Your task to perform on an android device: Search for "bose soundsport free" on costco, select the first entry, and add it to the cart. Image 0: 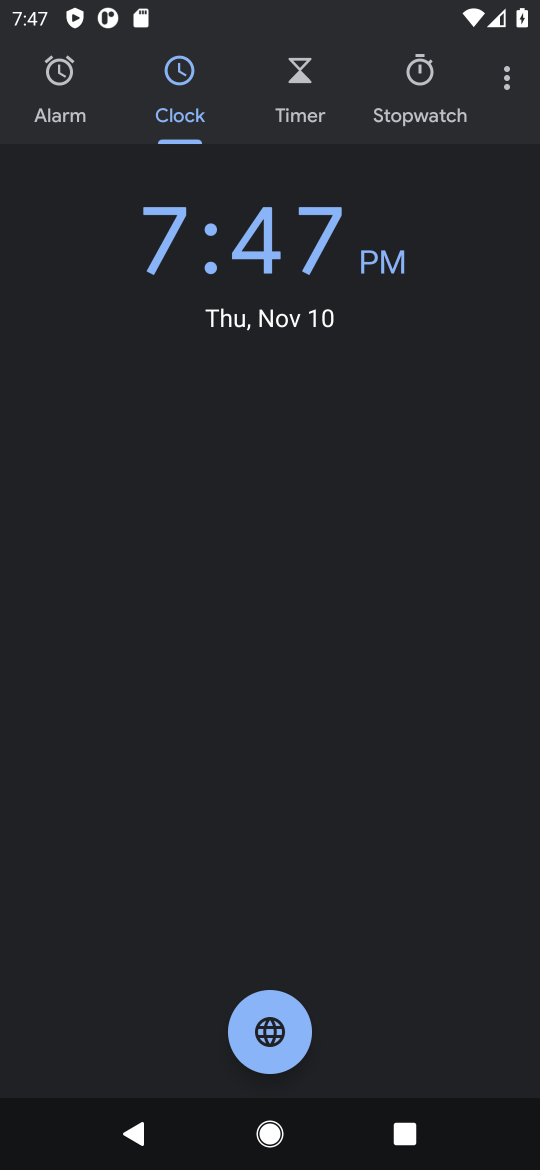
Step 0: press home button
Your task to perform on an android device: Search for "bose soundsport free" on costco, select the first entry, and add it to the cart. Image 1: 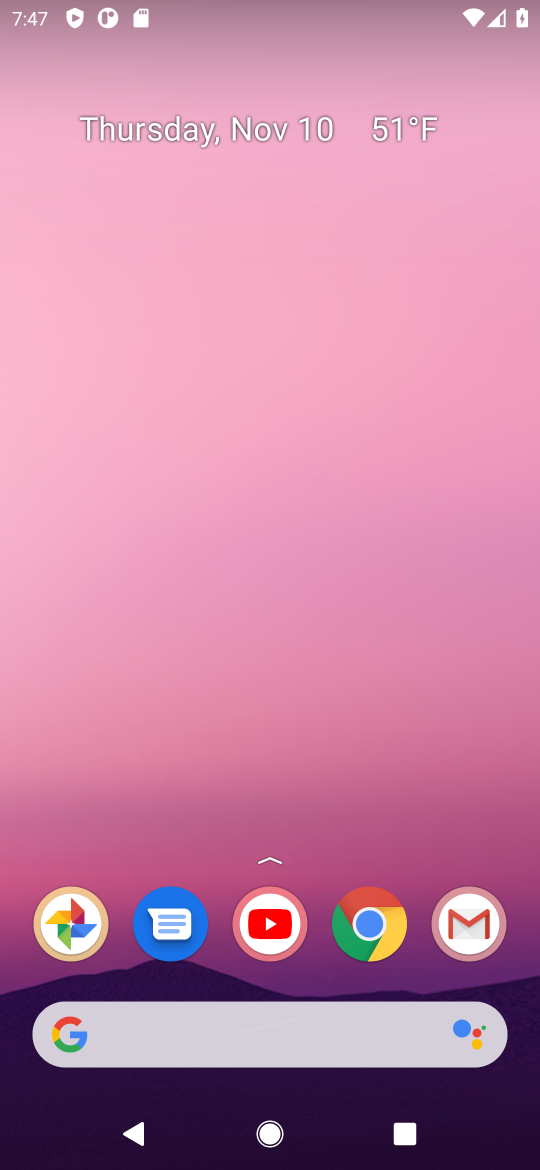
Step 1: click (368, 927)
Your task to perform on an android device: Search for "bose soundsport free" on costco, select the first entry, and add it to the cart. Image 2: 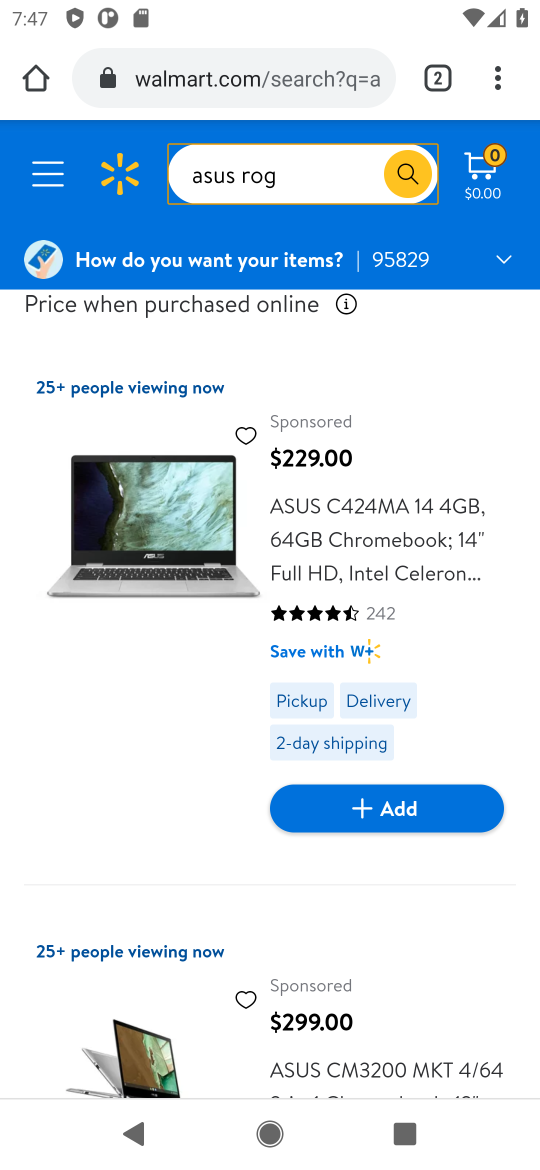
Step 2: click (249, 78)
Your task to perform on an android device: Search for "bose soundsport free" on costco, select the first entry, and add it to the cart. Image 3: 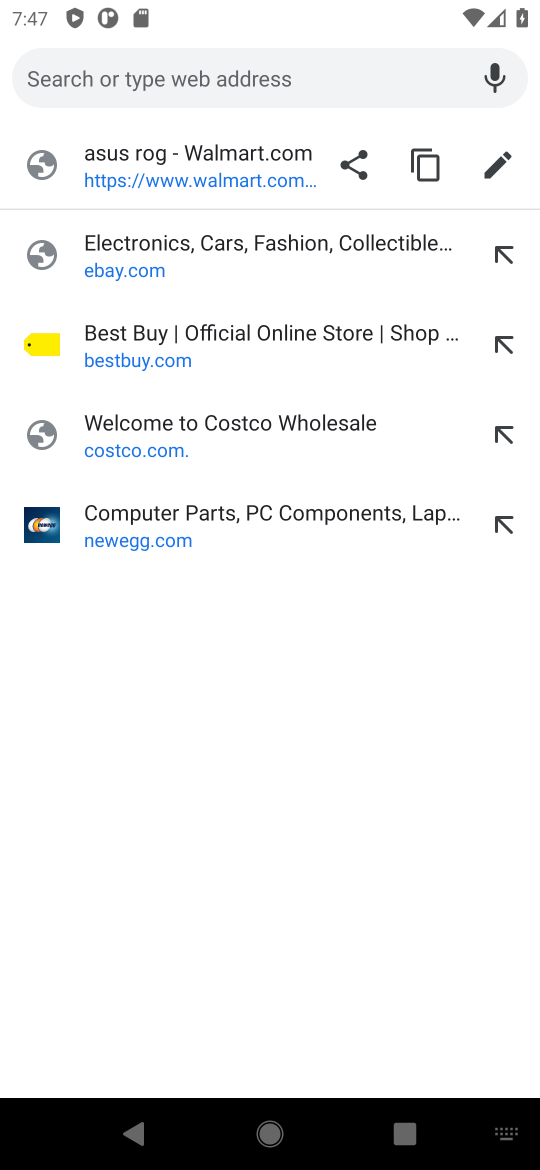
Step 3: click (116, 429)
Your task to perform on an android device: Search for "bose soundsport free" on costco, select the first entry, and add it to the cart. Image 4: 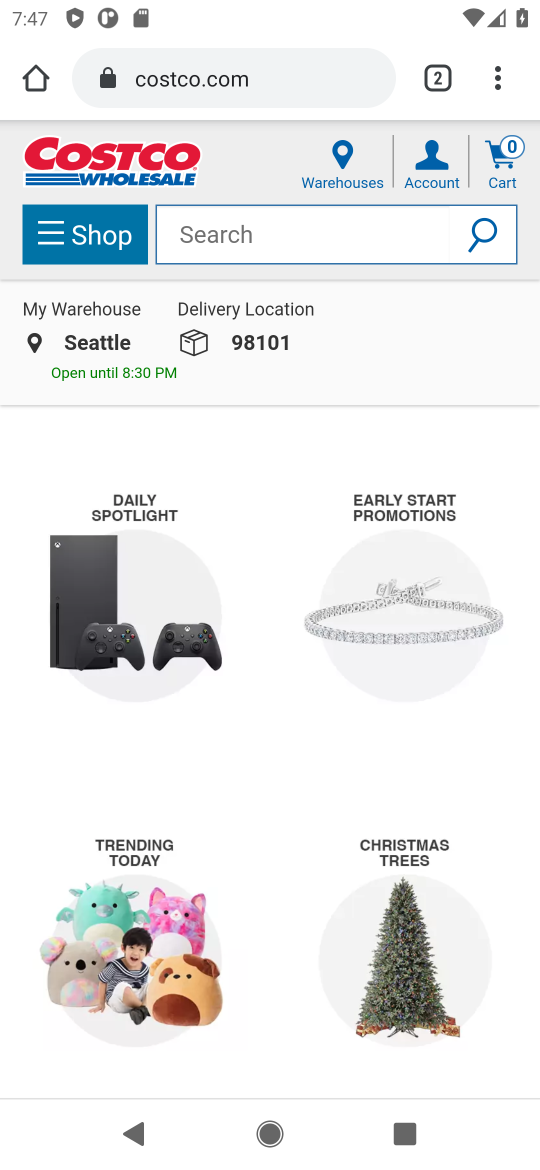
Step 4: click (220, 241)
Your task to perform on an android device: Search for "bose soundsport free" on costco, select the first entry, and add it to the cart. Image 5: 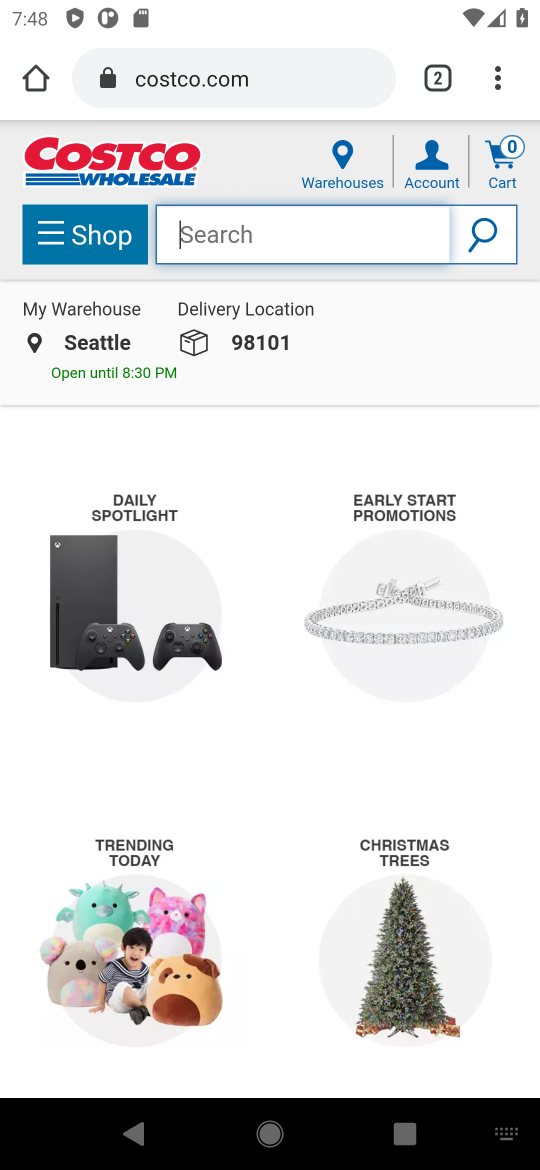
Step 5: type "bose soundsport free"
Your task to perform on an android device: Search for "bose soundsport free" on costco, select the first entry, and add it to the cart. Image 6: 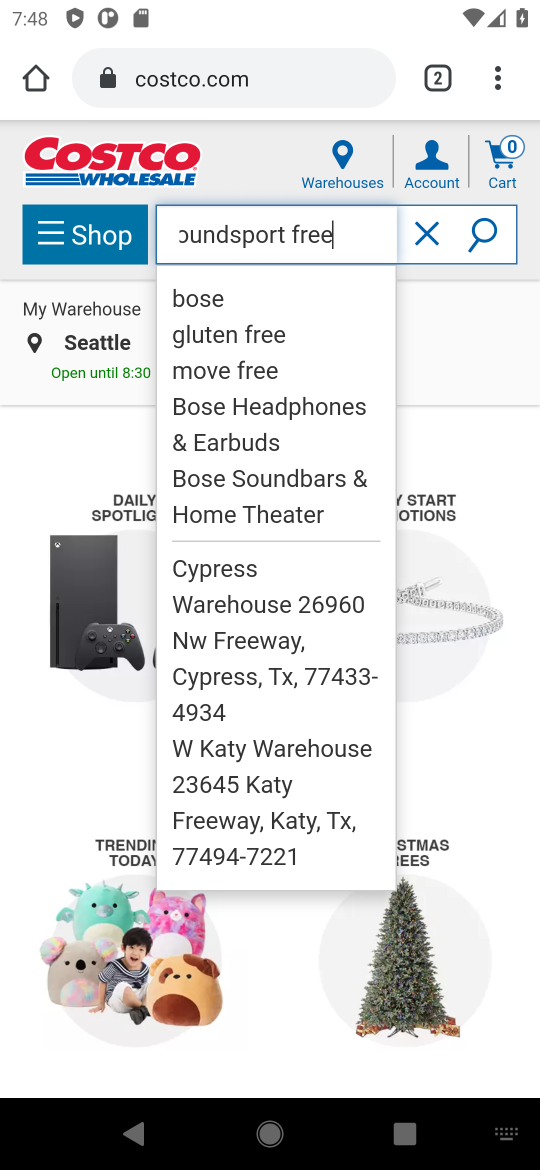
Step 6: click (477, 235)
Your task to perform on an android device: Search for "bose soundsport free" on costco, select the first entry, and add it to the cart. Image 7: 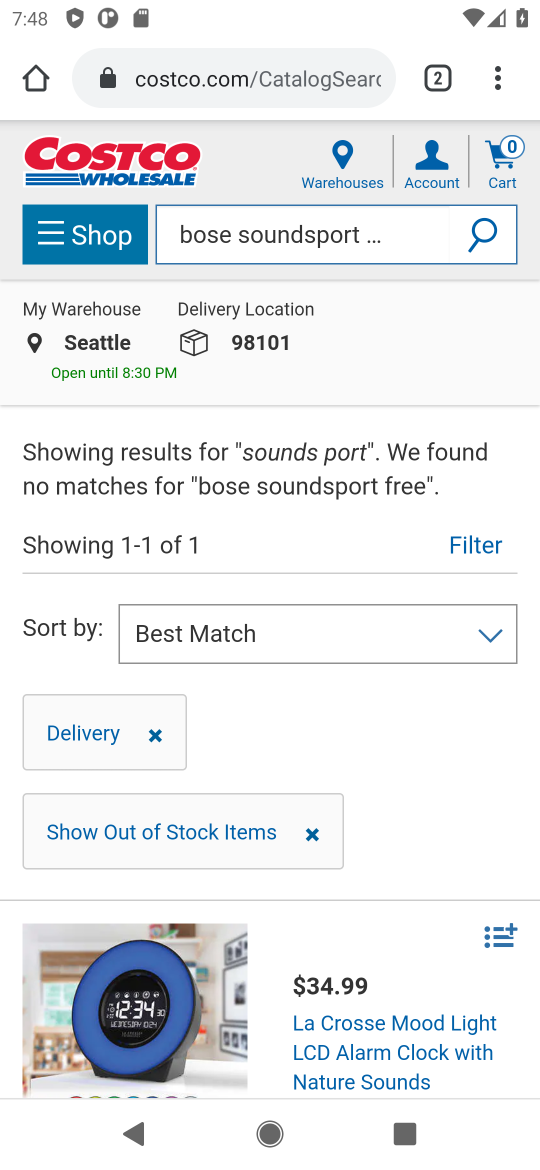
Step 7: task complete